Your task to perform on an android device: check google app version Image 0: 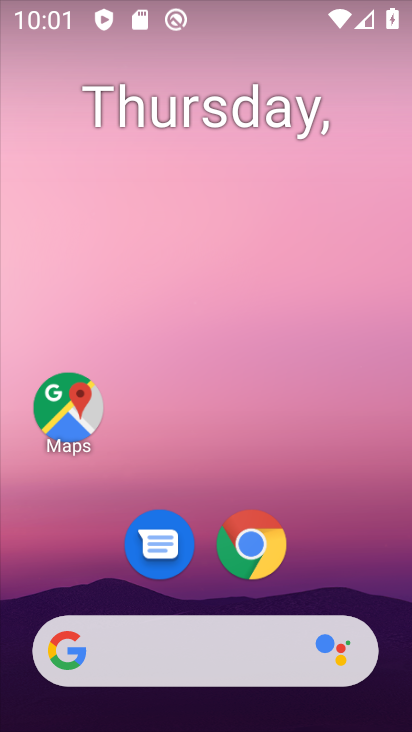
Step 0: drag from (208, 587) to (208, 90)
Your task to perform on an android device: check google app version Image 1: 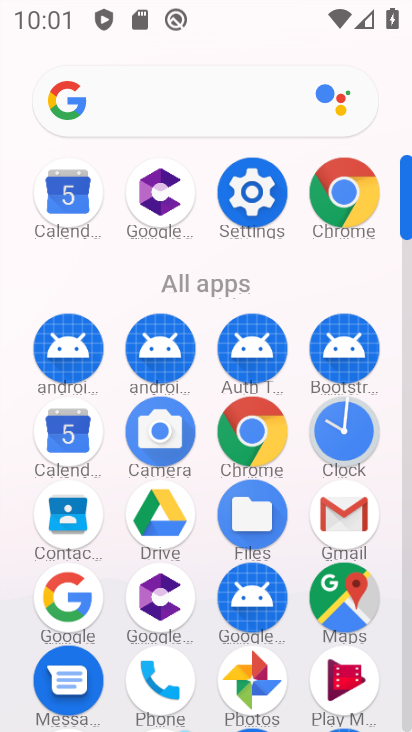
Step 1: click (61, 590)
Your task to perform on an android device: check google app version Image 2: 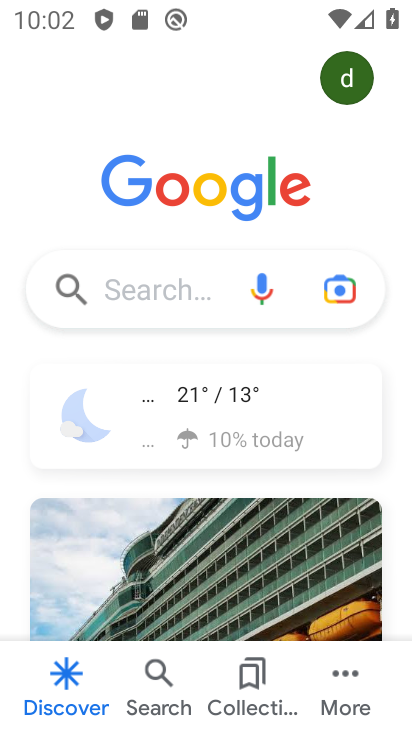
Step 2: click (346, 674)
Your task to perform on an android device: check google app version Image 3: 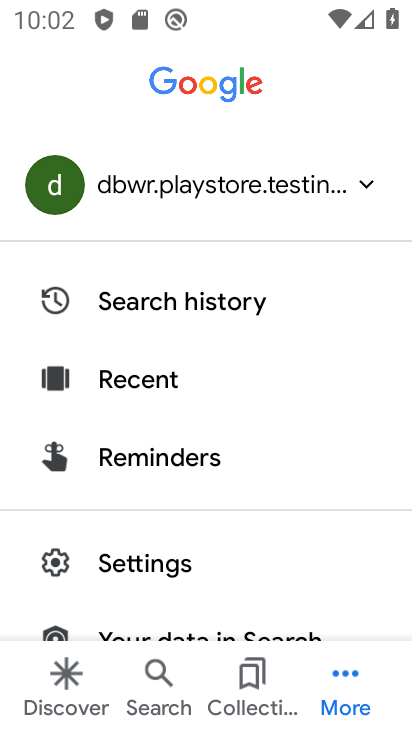
Step 3: drag from (223, 585) to (215, 406)
Your task to perform on an android device: check google app version Image 4: 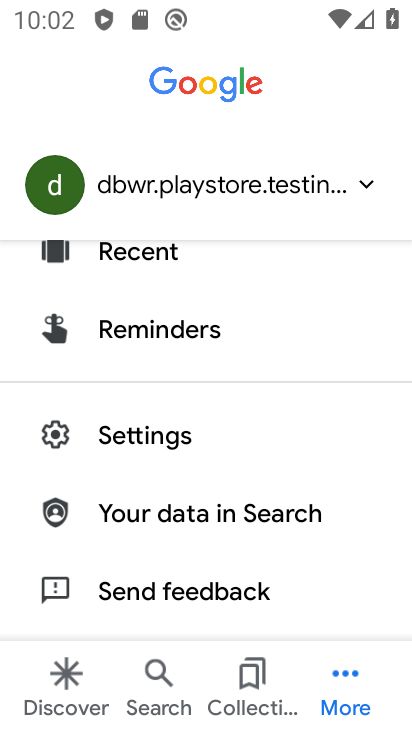
Step 4: click (191, 426)
Your task to perform on an android device: check google app version Image 5: 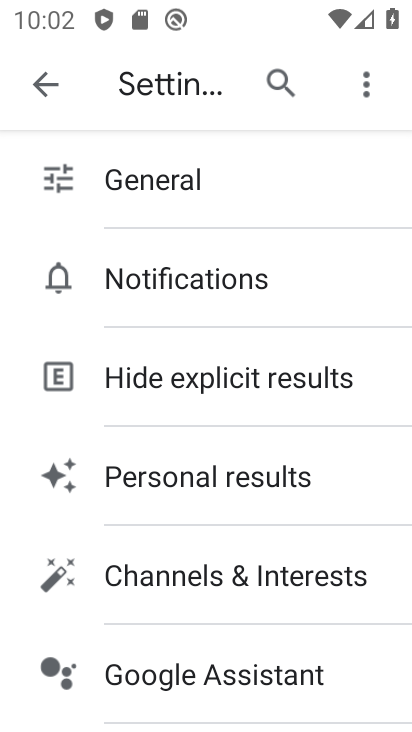
Step 5: drag from (173, 616) to (221, 269)
Your task to perform on an android device: check google app version Image 6: 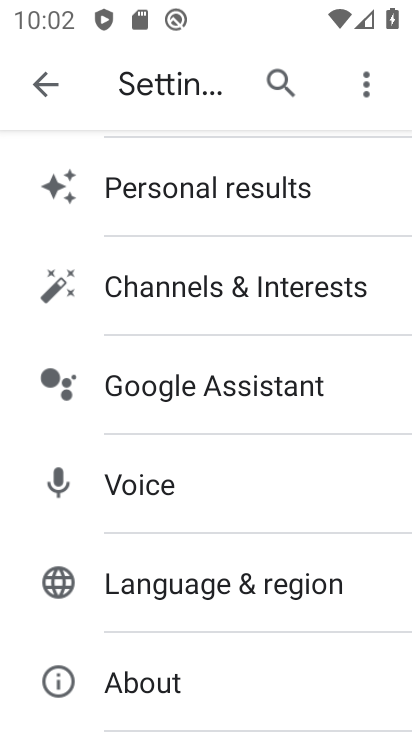
Step 6: click (177, 673)
Your task to perform on an android device: check google app version Image 7: 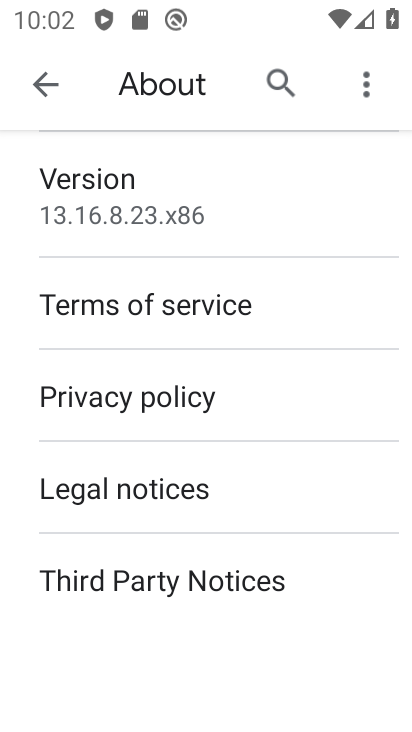
Step 7: task complete